Your task to perform on an android device: turn smart compose on in the gmail app Image 0: 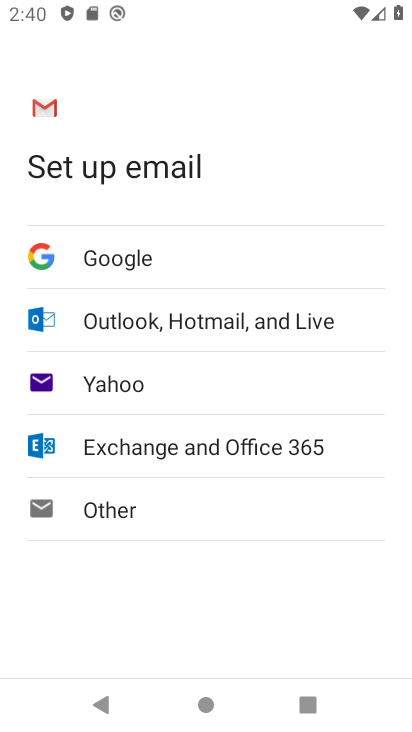
Step 0: press home button
Your task to perform on an android device: turn smart compose on in the gmail app Image 1: 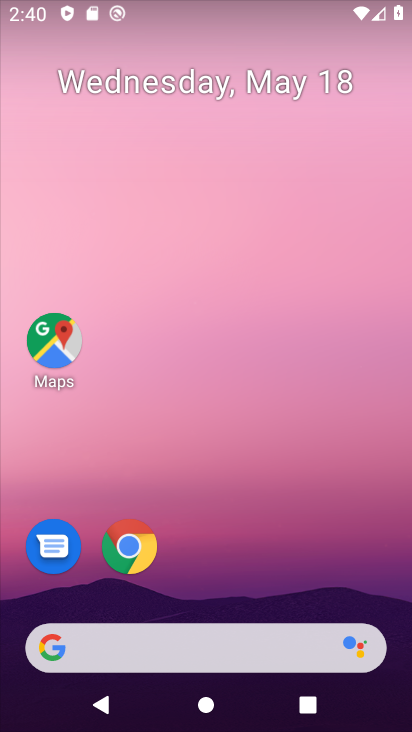
Step 1: drag from (228, 727) to (231, 193)
Your task to perform on an android device: turn smart compose on in the gmail app Image 2: 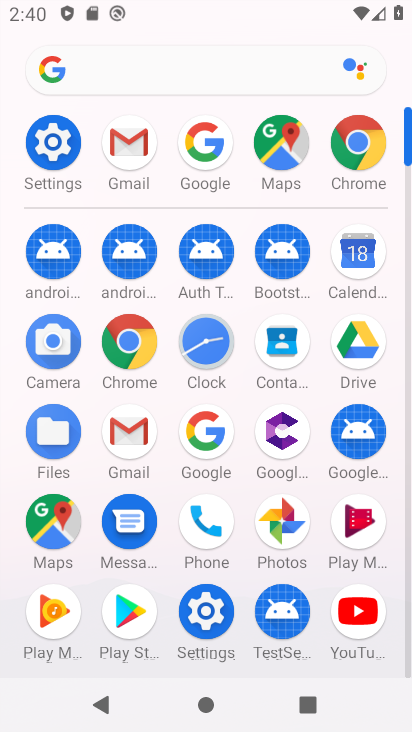
Step 2: click (128, 436)
Your task to perform on an android device: turn smart compose on in the gmail app Image 3: 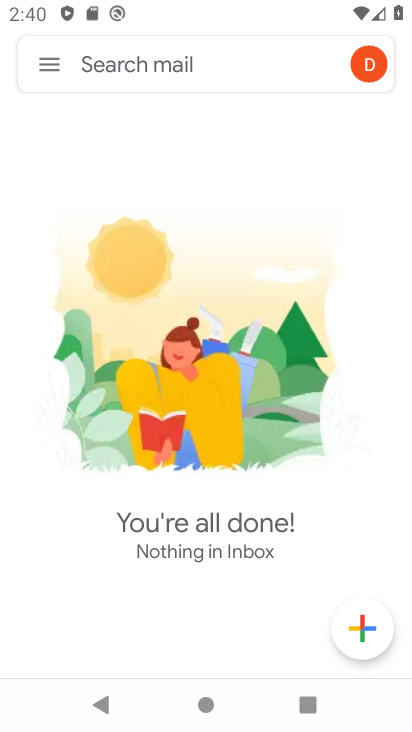
Step 3: click (47, 65)
Your task to perform on an android device: turn smart compose on in the gmail app Image 4: 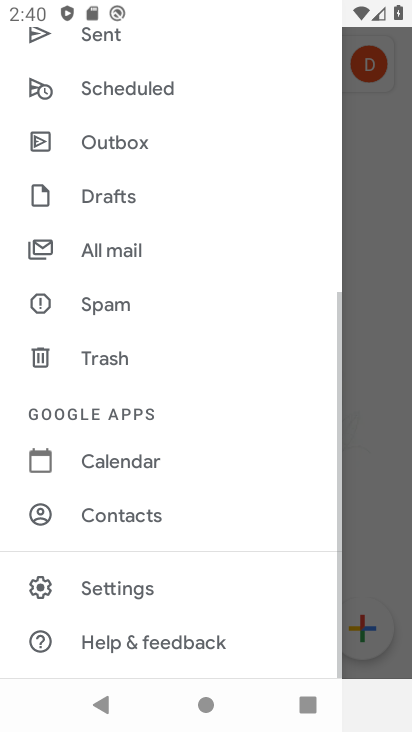
Step 4: click (138, 592)
Your task to perform on an android device: turn smart compose on in the gmail app Image 5: 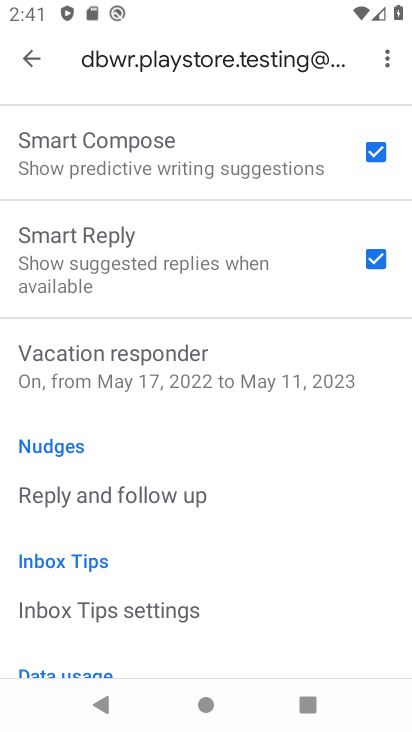
Step 5: task complete